Your task to perform on an android device: Go to CNN.com Image 0: 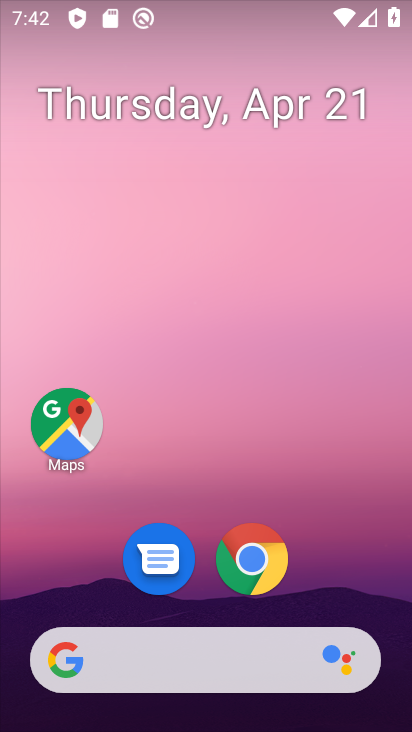
Step 0: click (212, 673)
Your task to perform on an android device: Go to CNN.com Image 1: 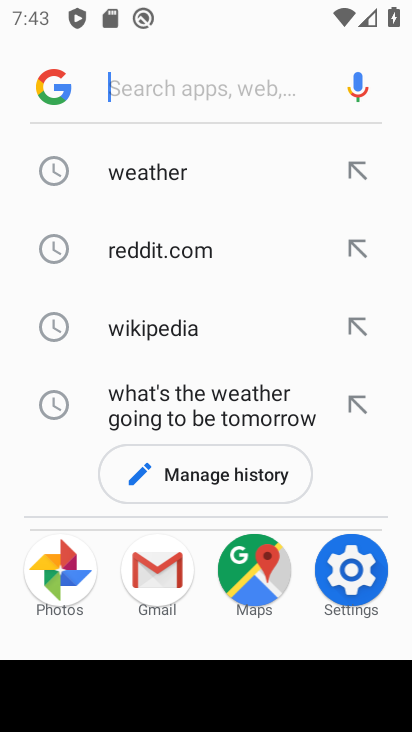
Step 1: type "cnn.com"
Your task to perform on an android device: Go to CNN.com Image 2: 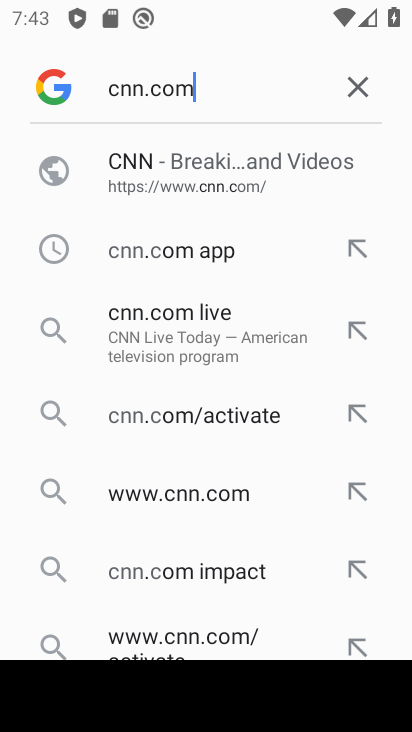
Step 2: type ""
Your task to perform on an android device: Go to CNN.com Image 3: 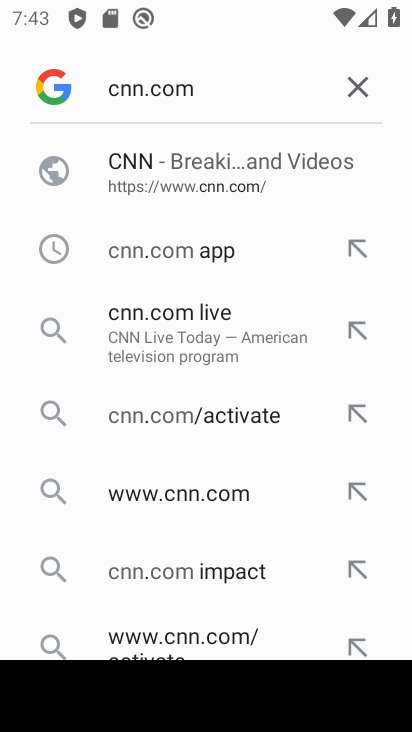
Step 3: click (247, 169)
Your task to perform on an android device: Go to CNN.com Image 4: 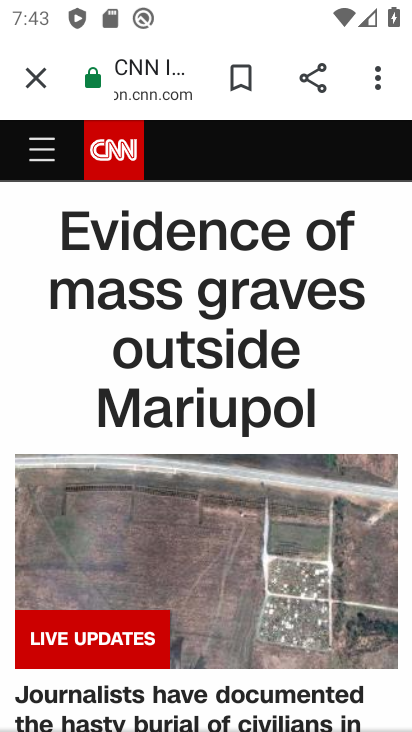
Step 4: task complete